Your task to perform on an android device: Open the stopwatch Image 0: 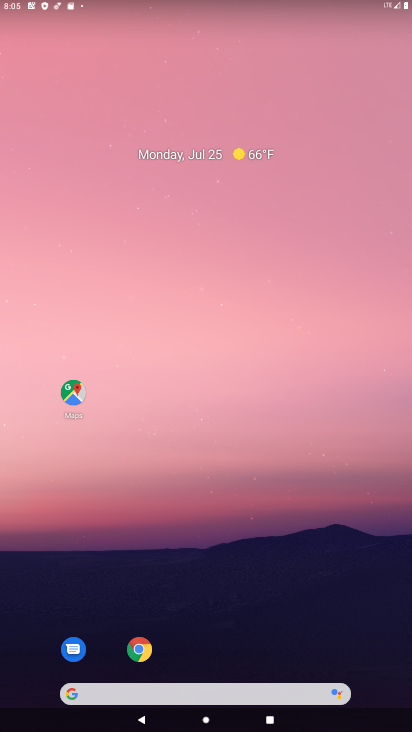
Step 0: drag from (270, 652) to (242, 125)
Your task to perform on an android device: Open the stopwatch Image 1: 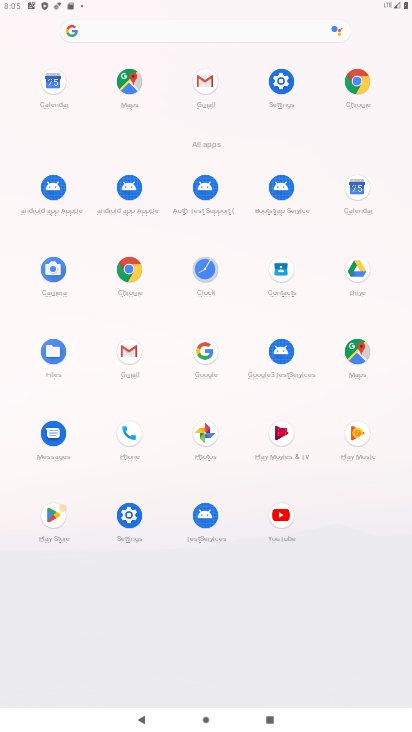
Step 1: click (207, 287)
Your task to perform on an android device: Open the stopwatch Image 2: 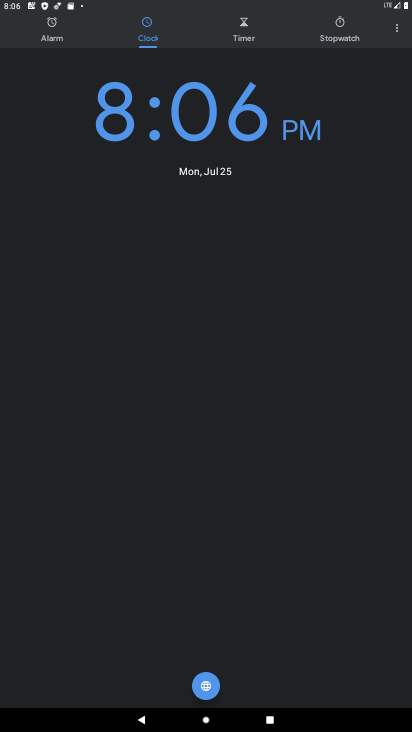
Step 2: click (350, 47)
Your task to perform on an android device: Open the stopwatch Image 3: 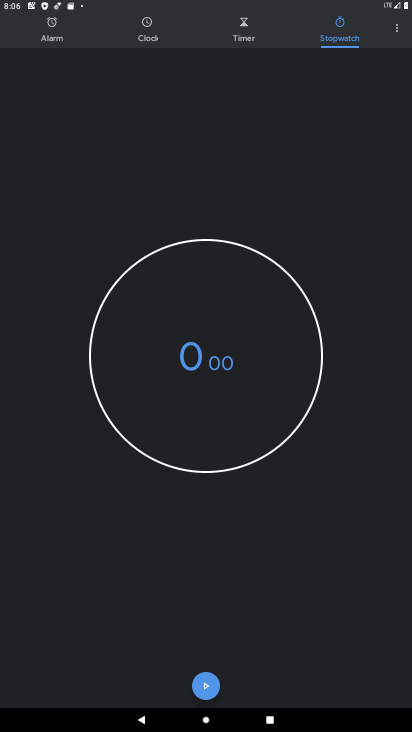
Step 3: task complete